Your task to perform on an android device: find which apps use the phone's location Image 0: 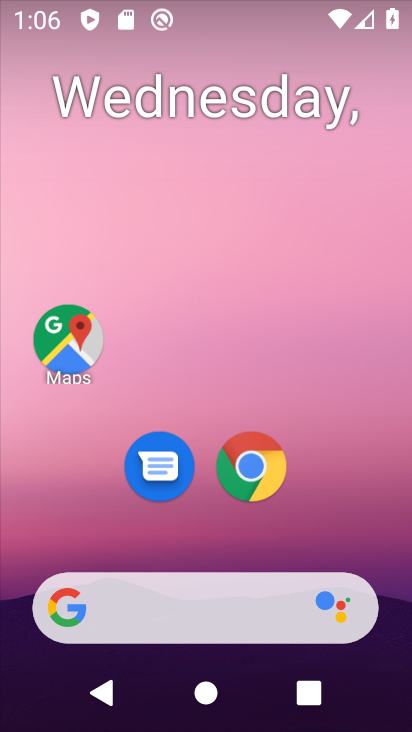
Step 0: drag from (304, 508) to (353, 179)
Your task to perform on an android device: find which apps use the phone's location Image 1: 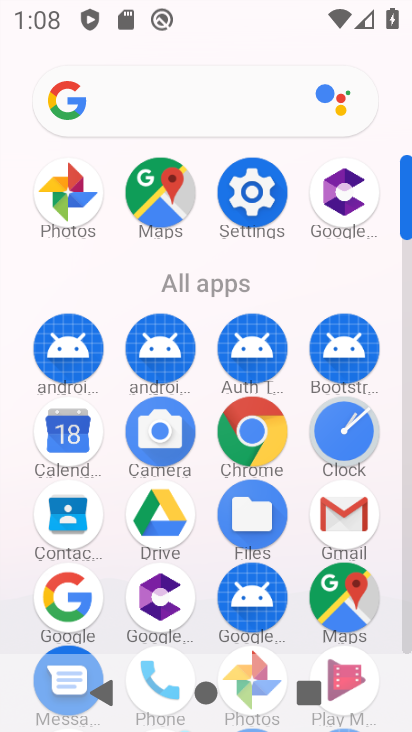
Step 1: click (399, 611)
Your task to perform on an android device: find which apps use the phone's location Image 2: 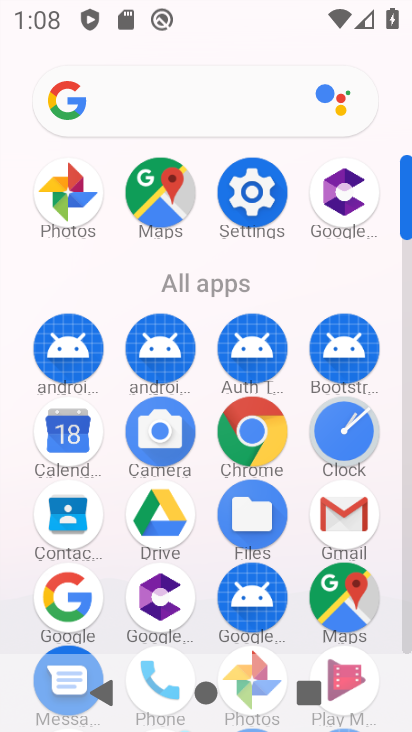
Step 2: click (404, 630)
Your task to perform on an android device: find which apps use the phone's location Image 3: 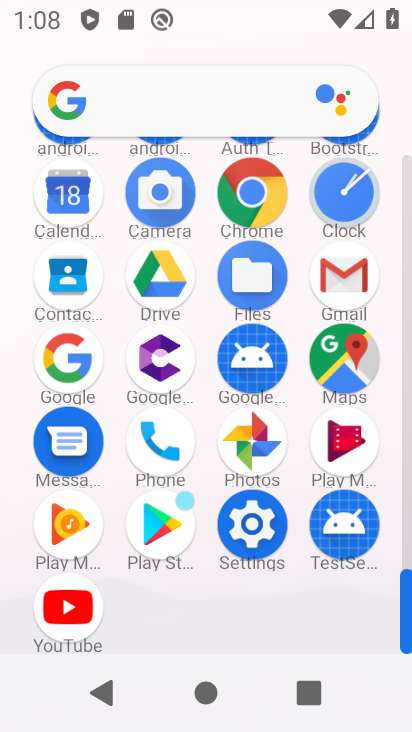
Step 3: click (404, 630)
Your task to perform on an android device: find which apps use the phone's location Image 4: 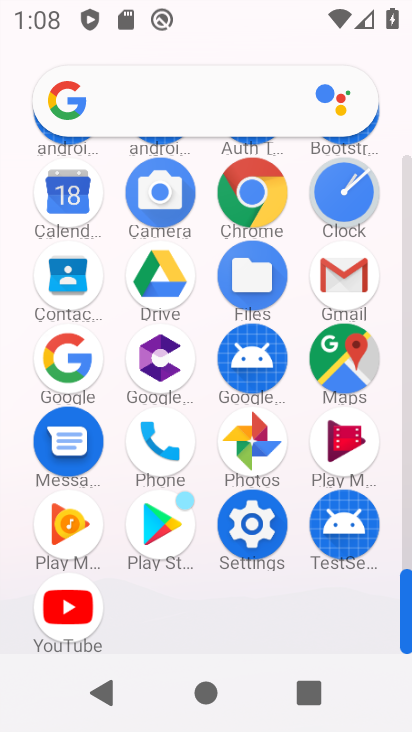
Step 4: click (404, 630)
Your task to perform on an android device: find which apps use the phone's location Image 5: 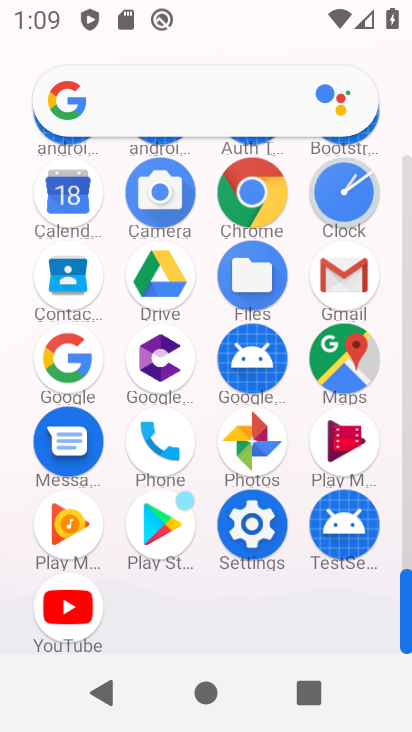
Step 5: click (160, 441)
Your task to perform on an android device: find which apps use the phone's location Image 6: 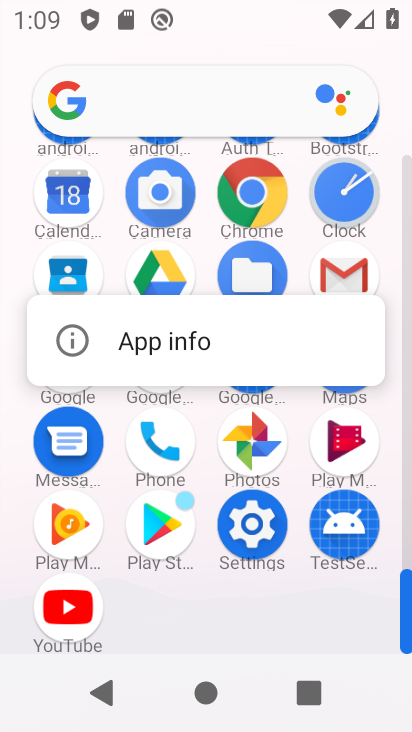
Step 6: click (183, 345)
Your task to perform on an android device: find which apps use the phone's location Image 7: 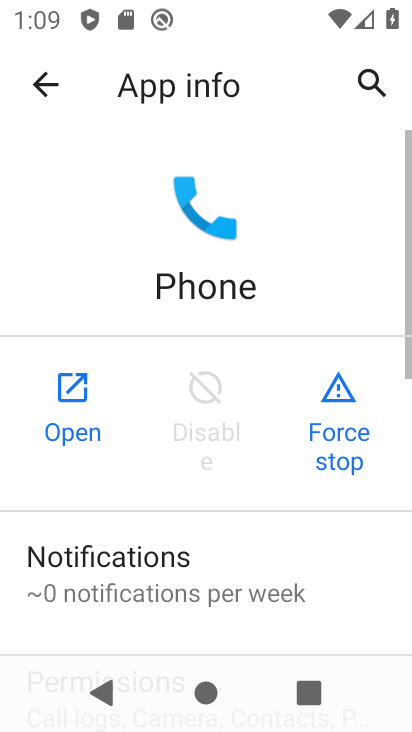
Step 7: drag from (258, 458) to (261, 209)
Your task to perform on an android device: find which apps use the phone's location Image 8: 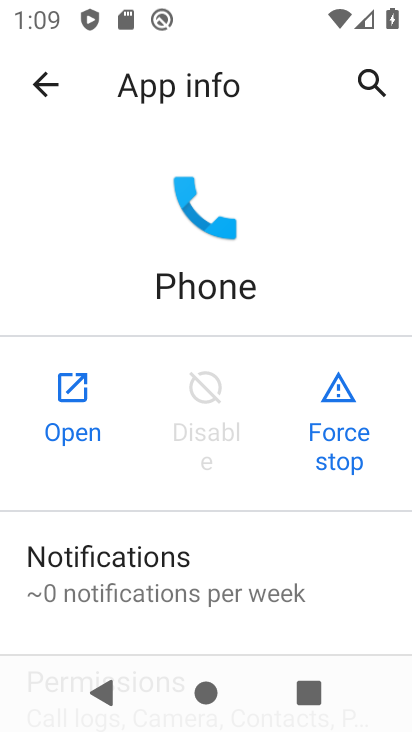
Step 8: drag from (211, 604) to (218, 298)
Your task to perform on an android device: find which apps use the phone's location Image 9: 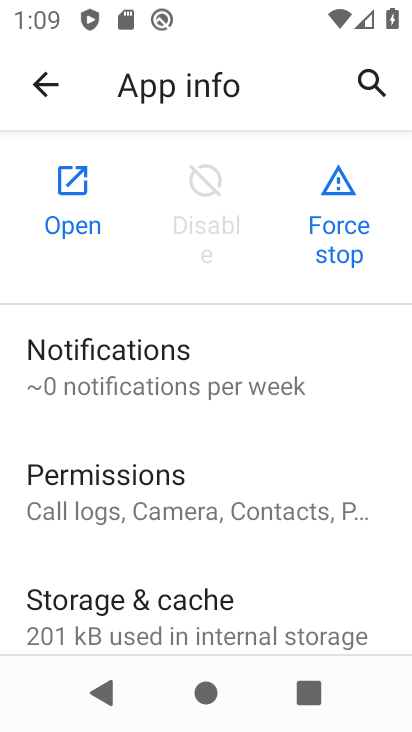
Step 9: click (209, 485)
Your task to perform on an android device: find which apps use the phone's location Image 10: 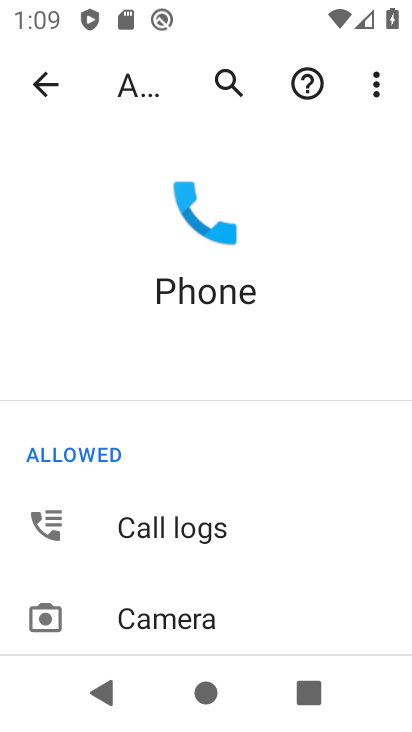
Step 10: drag from (160, 490) to (170, 114)
Your task to perform on an android device: find which apps use the phone's location Image 11: 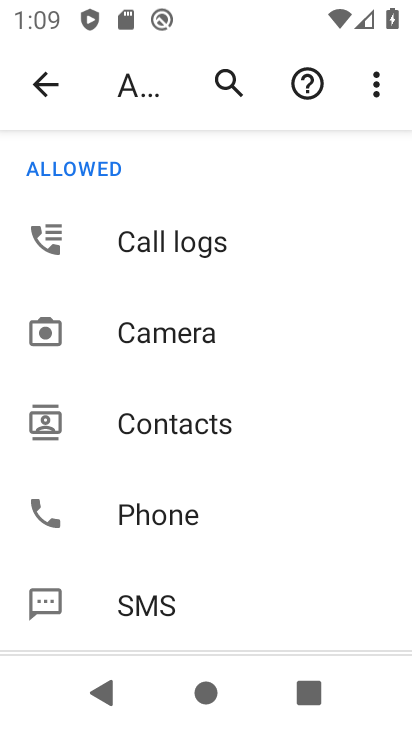
Step 11: drag from (192, 590) to (190, 14)
Your task to perform on an android device: find which apps use the phone's location Image 12: 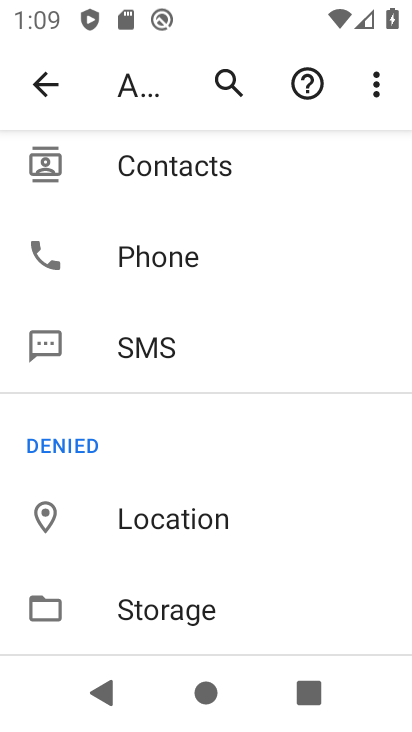
Step 12: click (55, 513)
Your task to perform on an android device: find which apps use the phone's location Image 13: 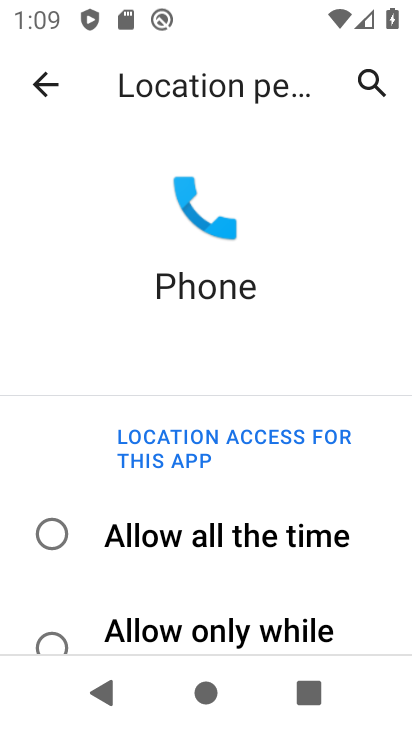
Step 13: drag from (239, 585) to (246, 59)
Your task to perform on an android device: find which apps use the phone's location Image 14: 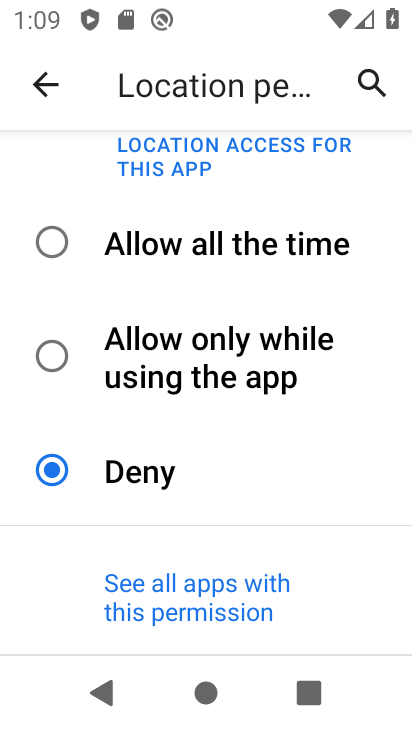
Step 14: click (260, 597)
Your task to perform on an android device: find which apps use the phone's location Image 15: 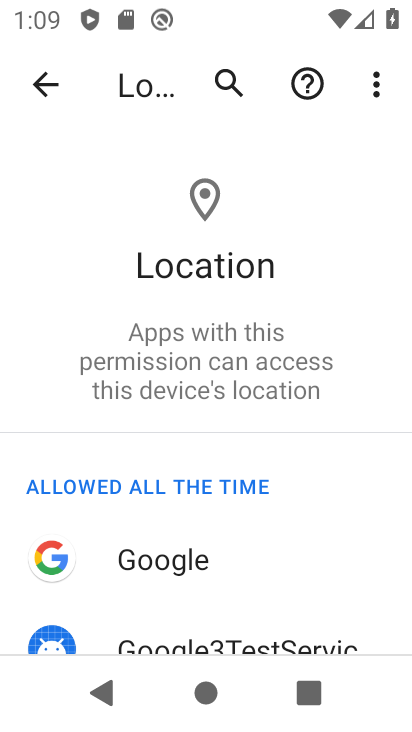
Step 15: task complete